Your task to perform on an android device: What's on my calendar today? Image 0: 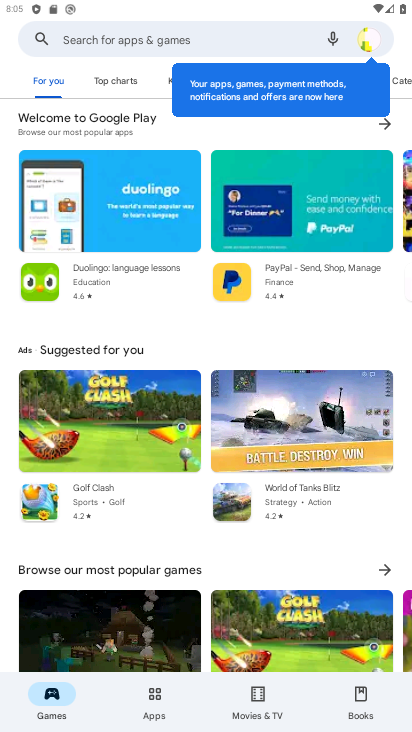
Step 0: press back button
Your task to perform on an android device: What's on my calendar today? Image 1: 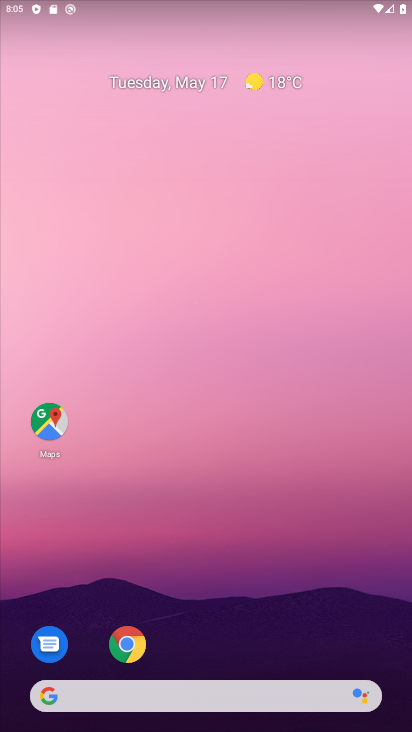
Step 1: drag from (175, 494) to (192, 44)
Your task to perform on an android device: What's on my calendar today? Image 2: 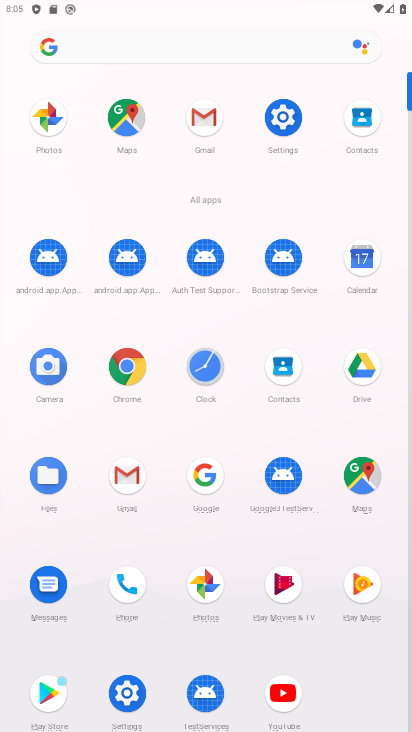
Step 2: click (367, 268)
Your task to perform on an android device: What's on my calendar today? Image 3: 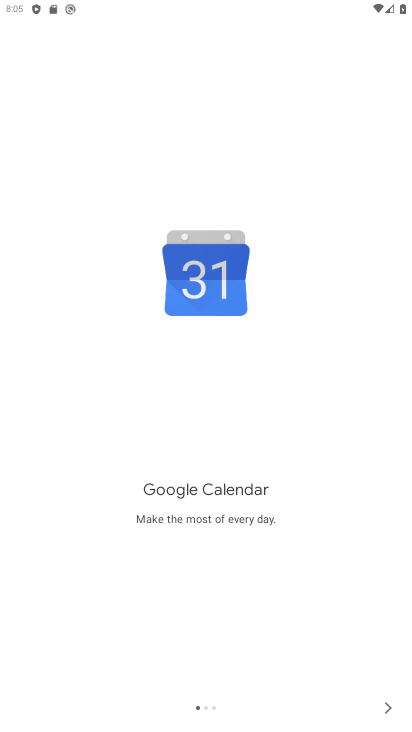
Step 3: click (388, 697)
Your task to perform on an android device: What's on my calendar today? Image 4: 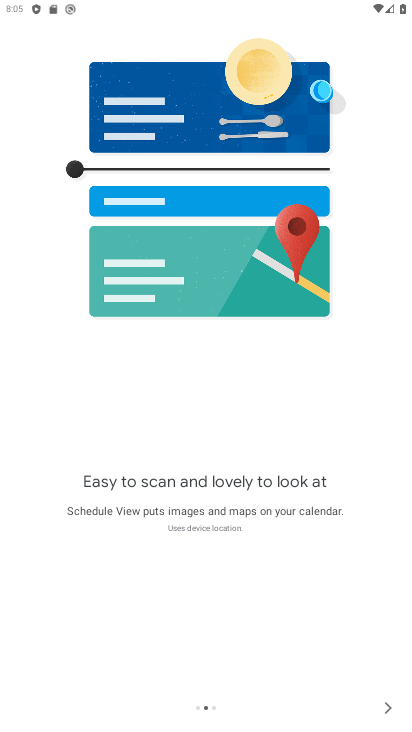
Step 4: click (388, 697)
Your task to perform on an android device: What's on my calendar today? Image 5: 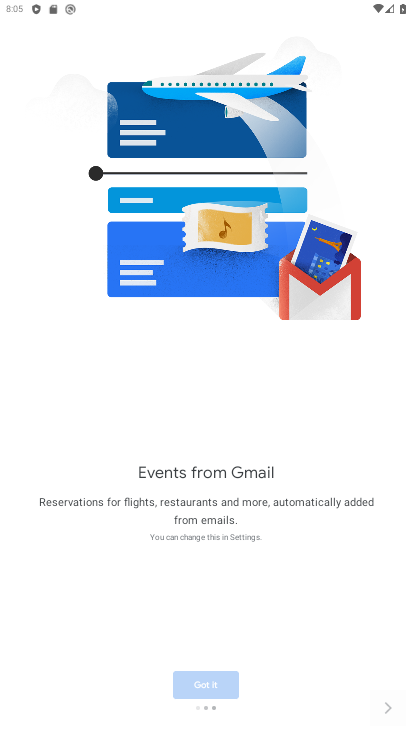
Step 5: click (388, 697)
Your task to perform on an android device: What's on my calendar today? Image 6: 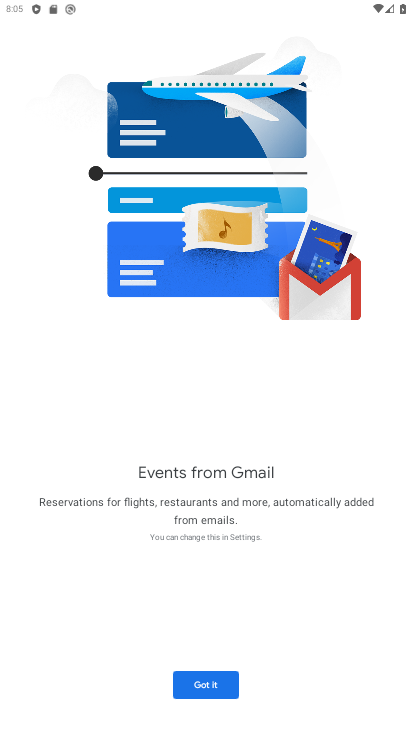
Step 6: click (239, 685)
Your task to perform on an android device: What's on my calendar today? Image 7: 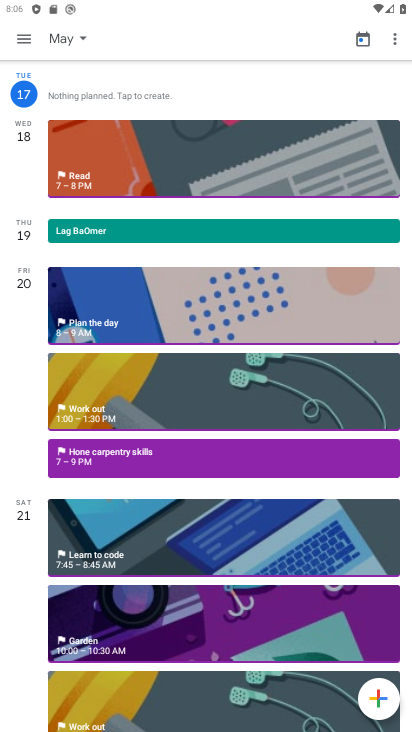
Step 7: drag from (254, 275) to (245, 539)
Your task to perform on an android device: What's on my calendar today? Image 8: 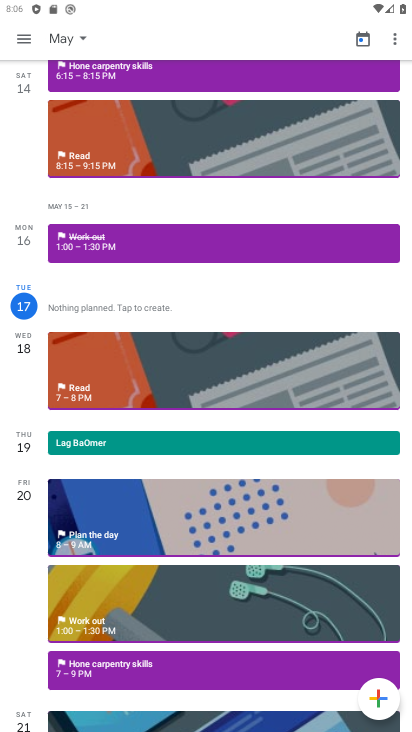
Step 8: click (115, 363)
Your task to perform on an android device: What's on my calendar today? Image 9: 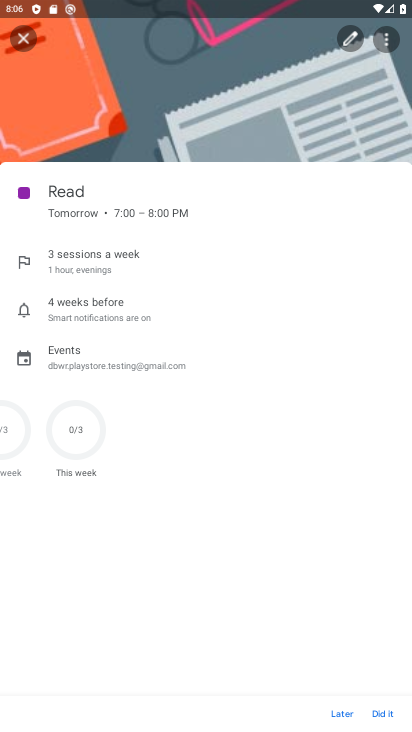
Step 9: task complete